Your task to perform on an android device: Go to Reddit.com Image 0: 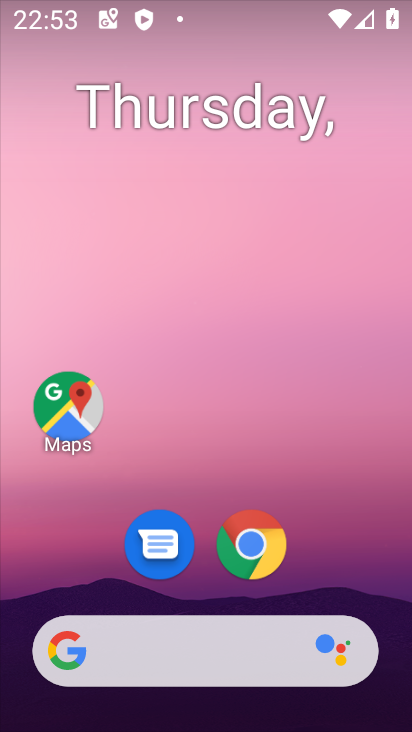
Step 0: drag from (324, 490) to (259, 21)
Your task to perform on an android device: Go to Reddit.com Image 1: 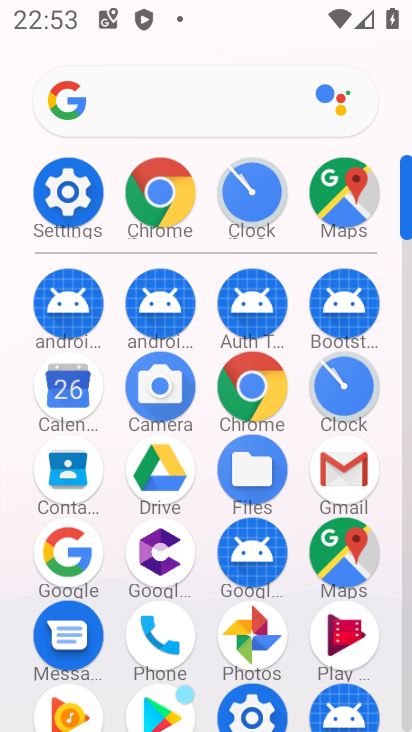
Step 1: drag from (9, 650) to (9, 292)
Your task to perform on an android device: Go to Reddit.com Image 2: 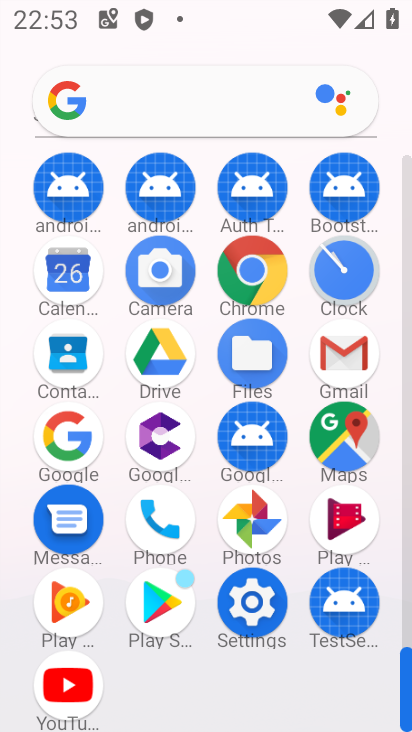
Step 2: click (253, 267)
Your task to perform on an android device: Go to Reddit.com Image 3: 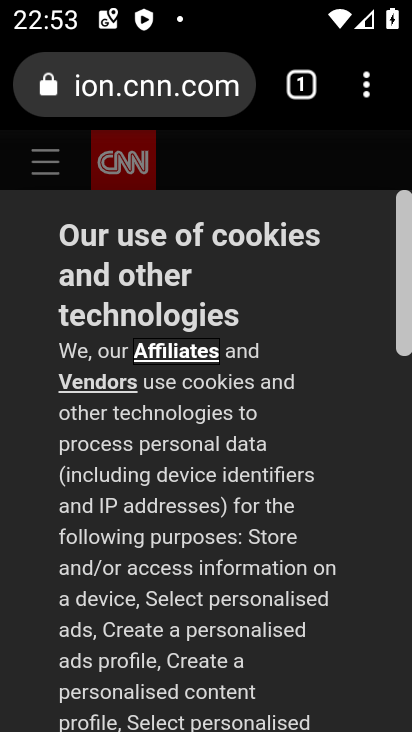
Step 3: click (142, 63)
Your task to perform on an android device: Go to Reddit.com Image 4: 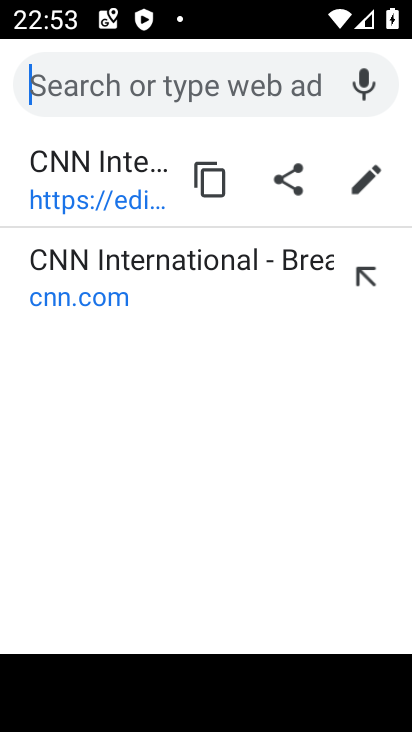
Step 4: type "Reddit.com"
Your task to perform on an android device: Go to Reddit.com Image 5: 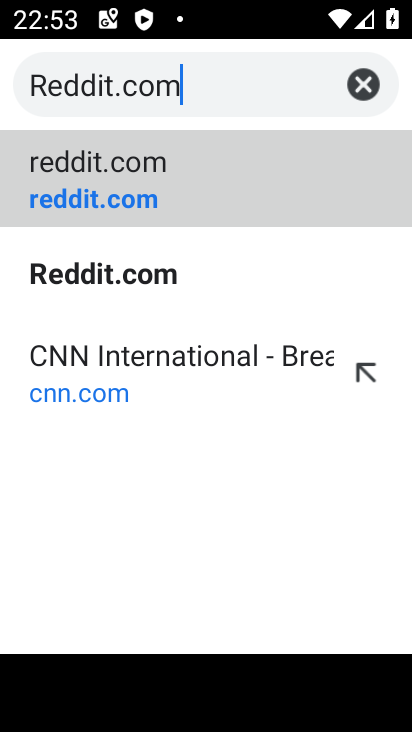
Step 5: type ""
Your task to perform on an android device: Go to Reddit.com Image 6: 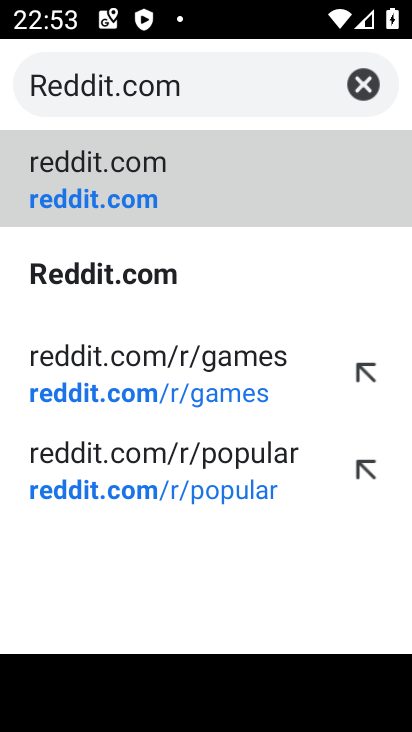
Step 6: click (132, 183)
Your task to perform on an android device: Go to Reddit.com Image 7: 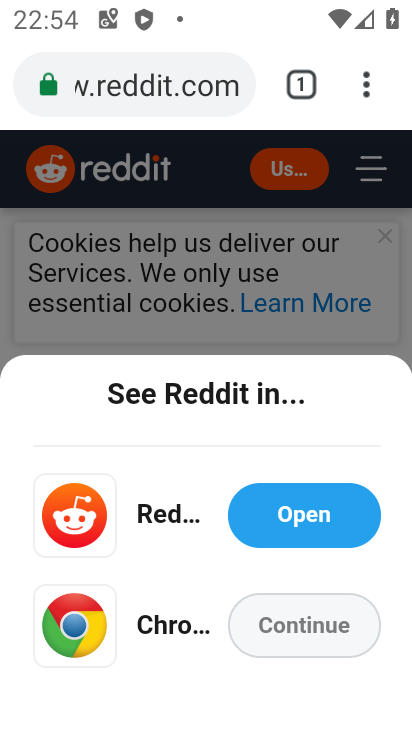
Step 7: task complete